Your task to perform on an android device: Clear the cart on target. Add "jbl charge 4" to the cart on target Image 0: 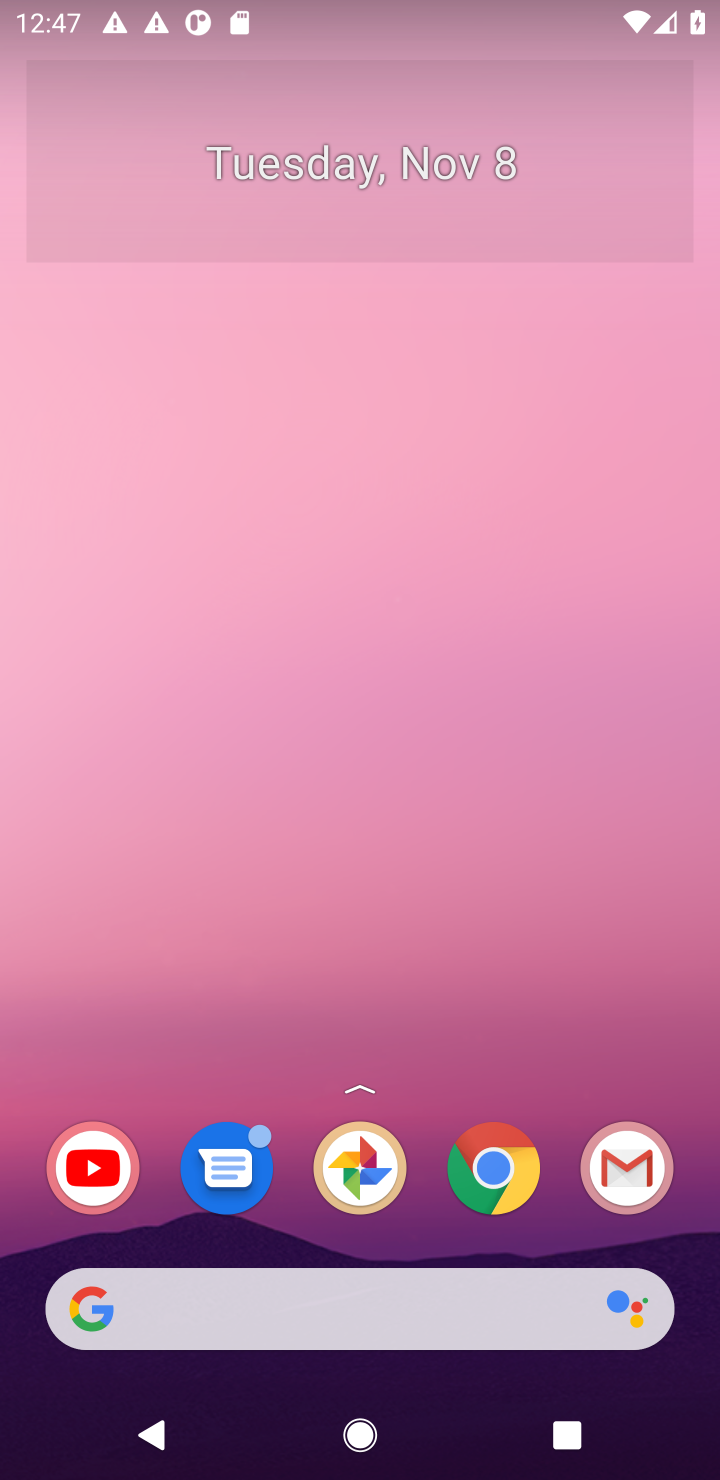
Step 0: drag from (363, 423) to (370, 25)
Your task to perform on an android device: Clear the cart on target. Add "jbl charge 4" to the cart on target Image 1: 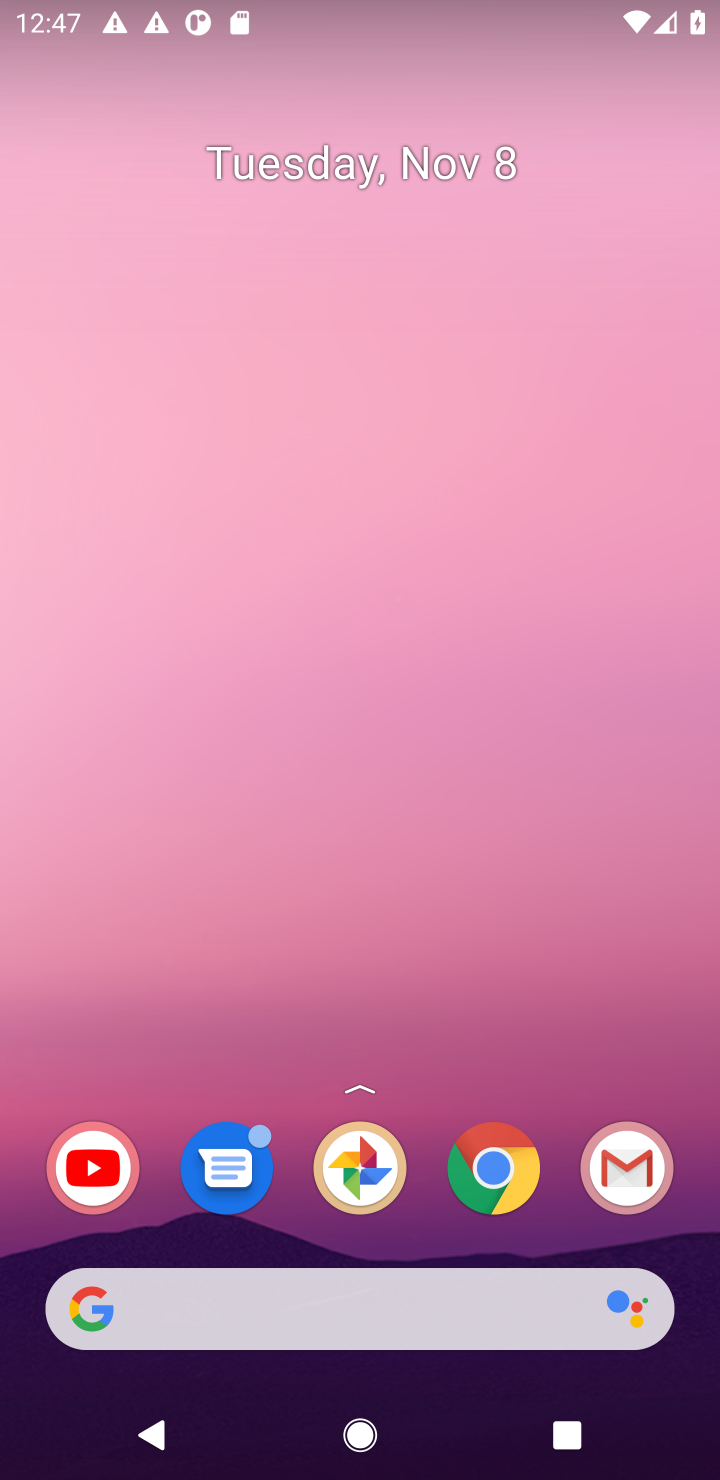
Step 1: drag from (331, 1235) to (418, 86)
Your task to perform on an android device: Clear the cart on target. Add "jbl charge 4" to the cart on target Image 2: 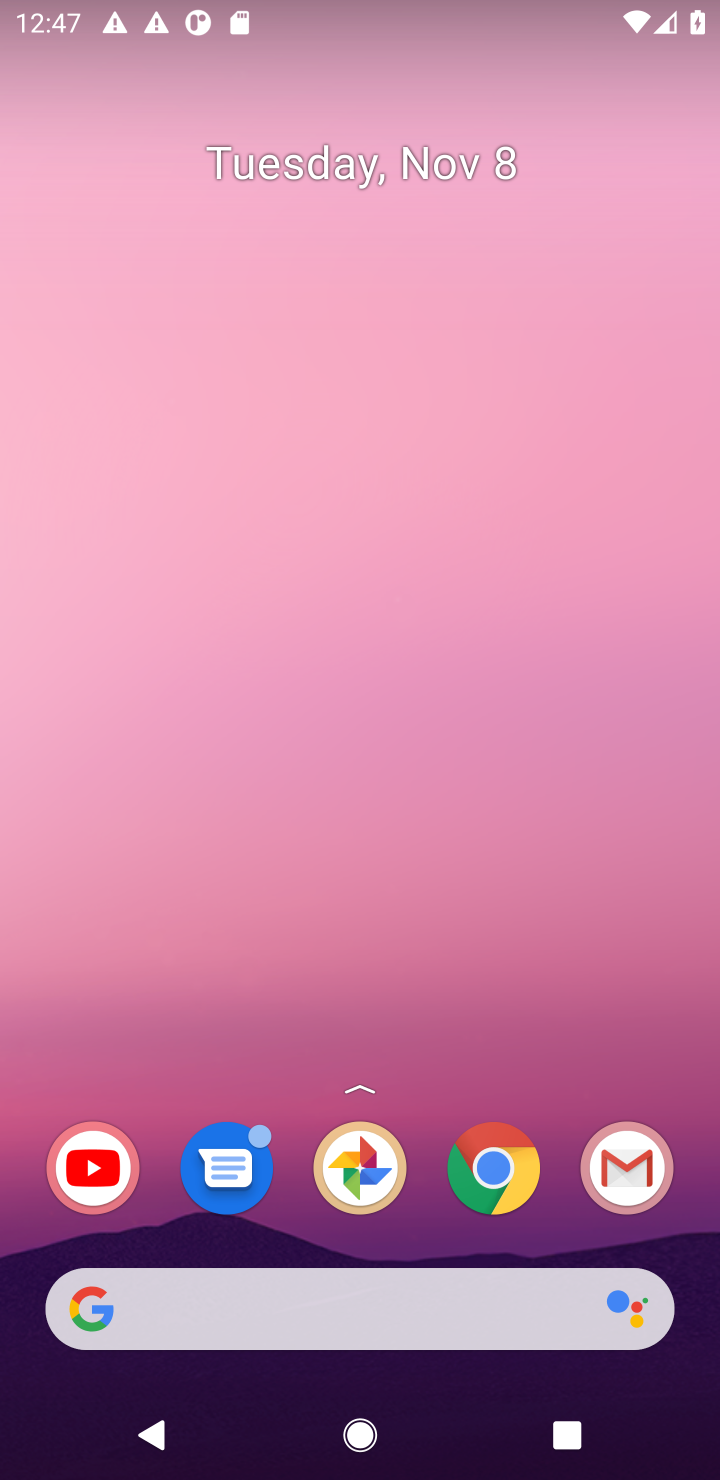
Step 2: drag from (438, 431) to (439, 174)
Your task to perform on an android device: Clear the cart on target. Add "jbl charge 4" to the cart on target Image 3: 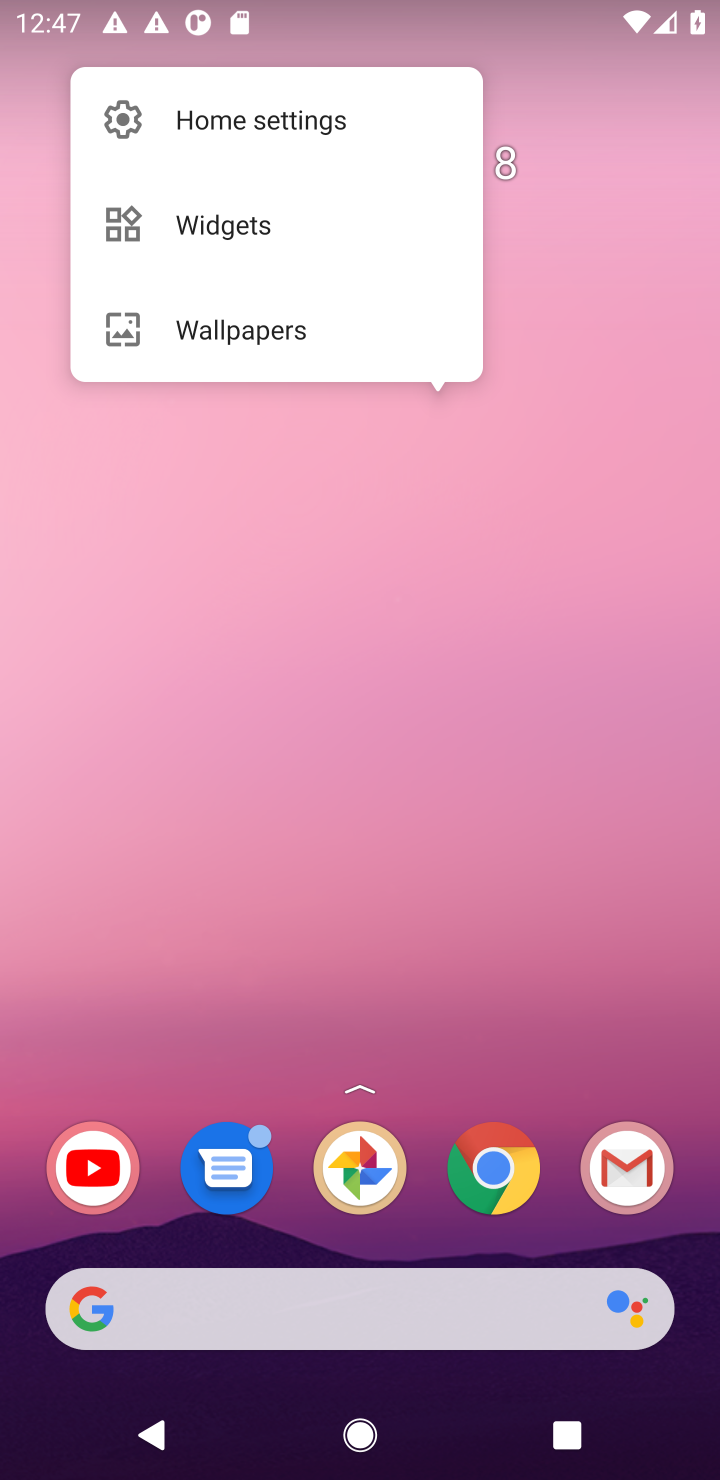
Step 3: click (511, 1165)
Your task to perform on an android device: Clear the cart on target. Add "jbl charge 4" to the cart on target Image 4: 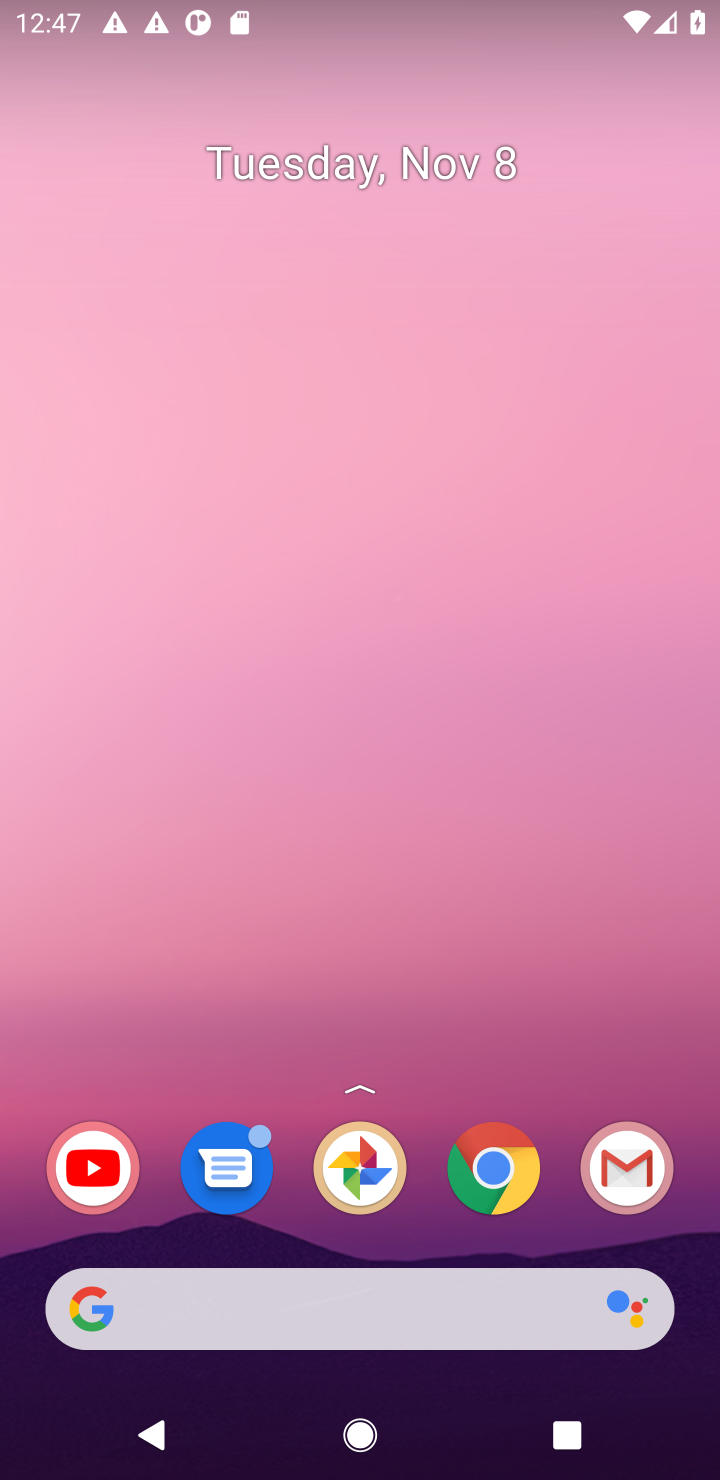
Step 4: click (504, 1178)
Your task to perform on an android device: Clear the cart on target. Add "jbl charge 4" to the cart on target Image 5: 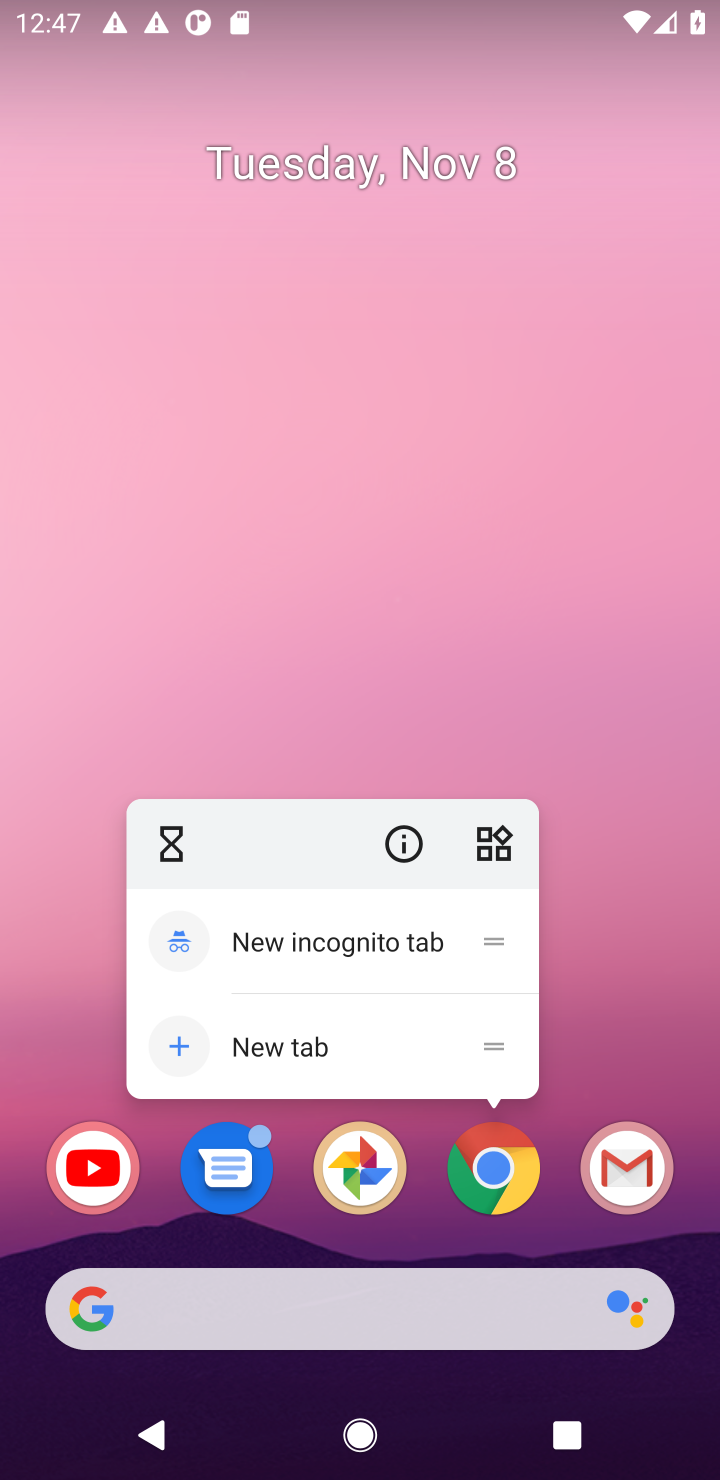
Step 5: click (509, 1156)
Your task to perform on an android device: Clear the cart on target. Add "jbl charge 4" to the cart on target Image 6: 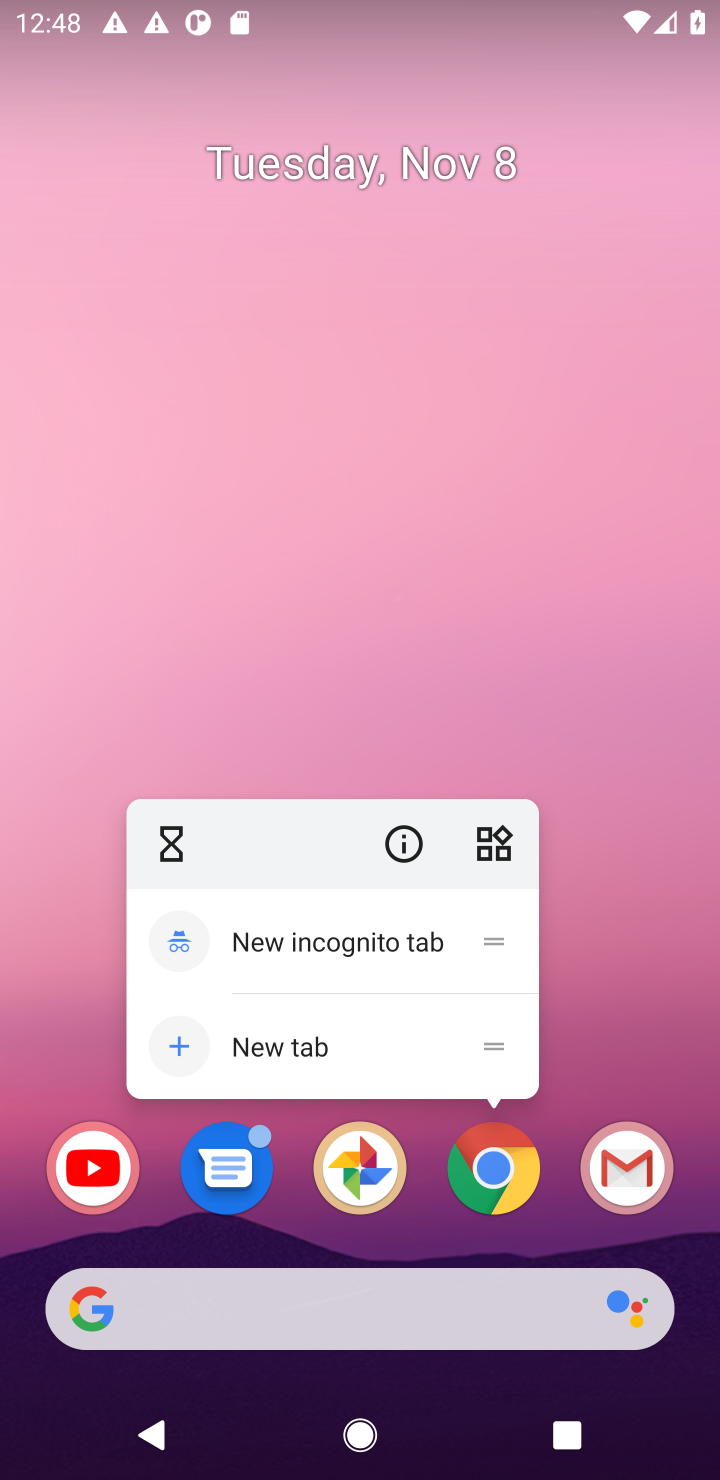
Step 6: click (495, 1180)
Your task to perform on an android device: Clear the cart on target. Add "jbl charge 4" to the cart on target Image 7: 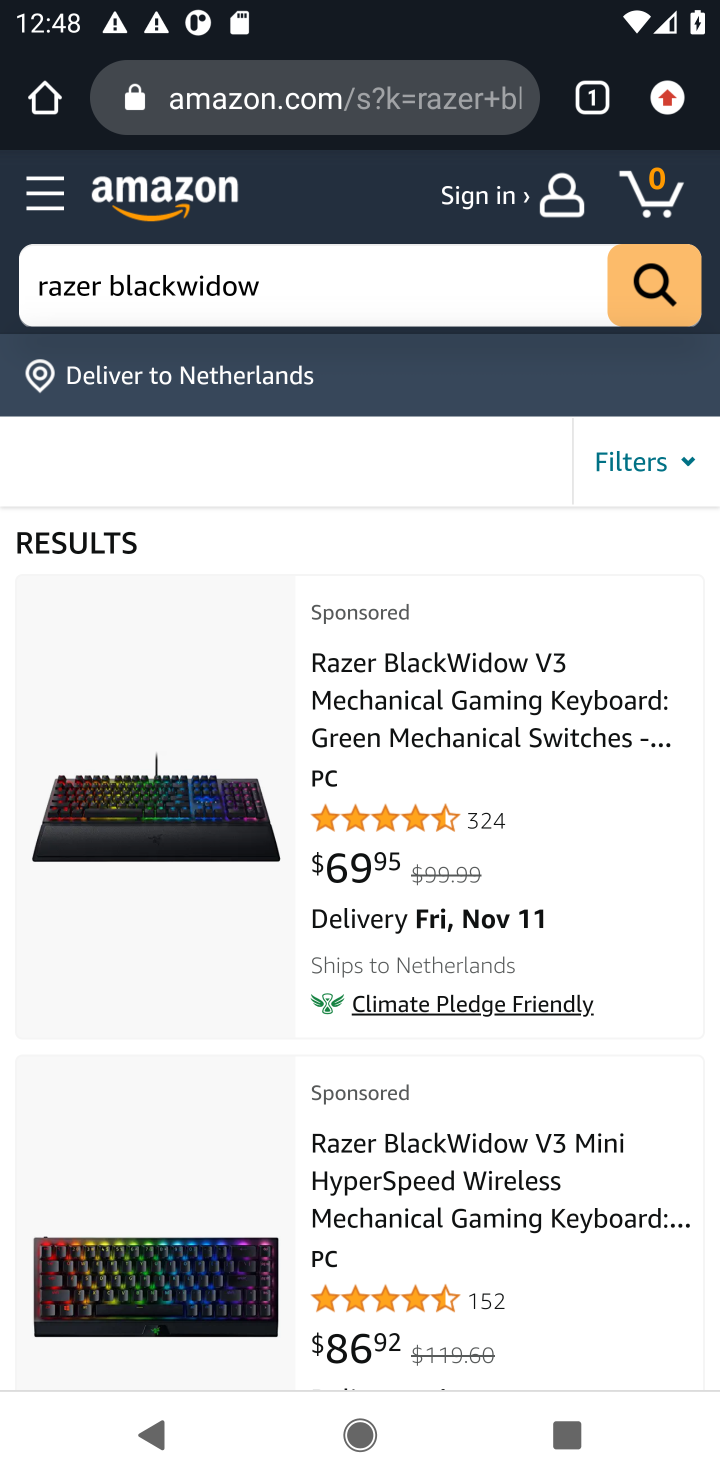
Step 7: click (296, 69)
Your task to perform on an android device: Clear the cart on target. Add "jbl charge 4" to the cart on target Image 8: 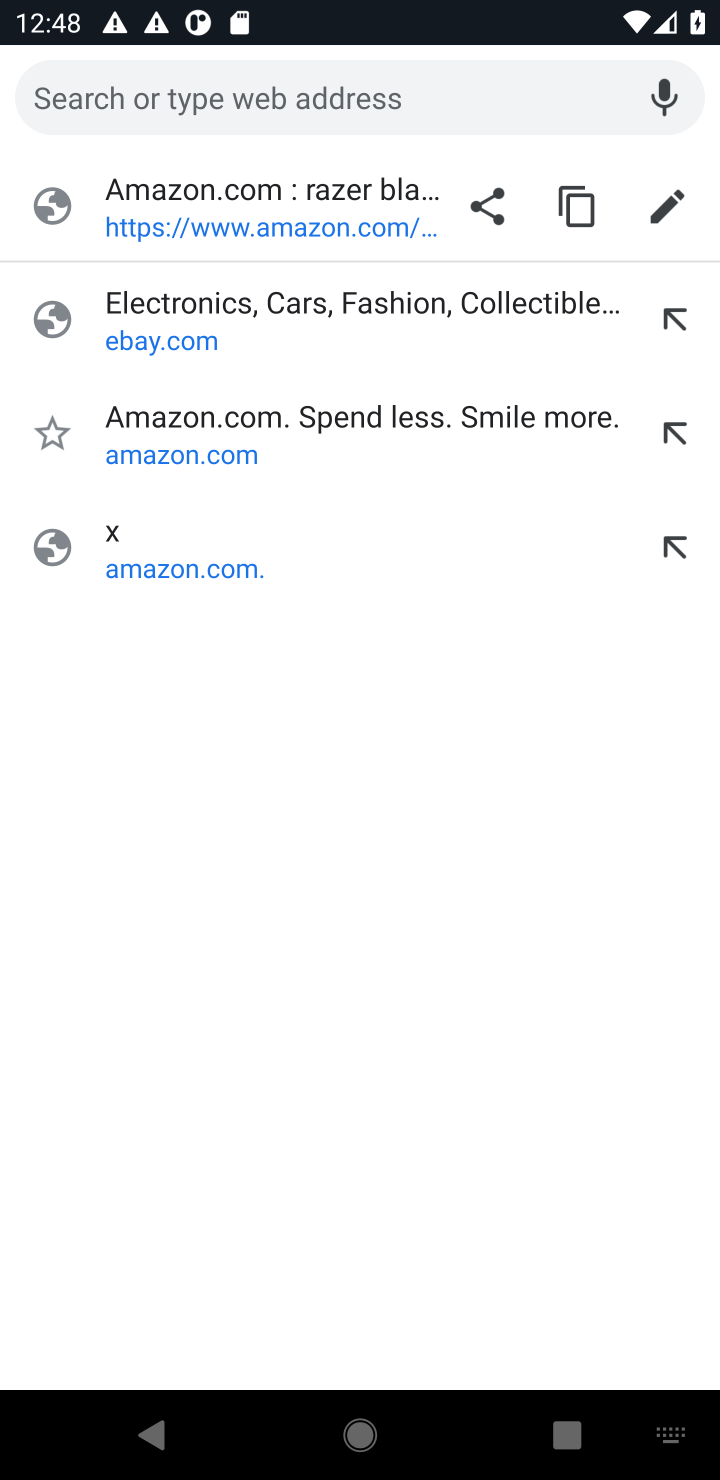
Step 8: type "target"
Your task to perform on an android device: Clear the cart on target. Add "jbl charge 4" to the cart on target Image 9: 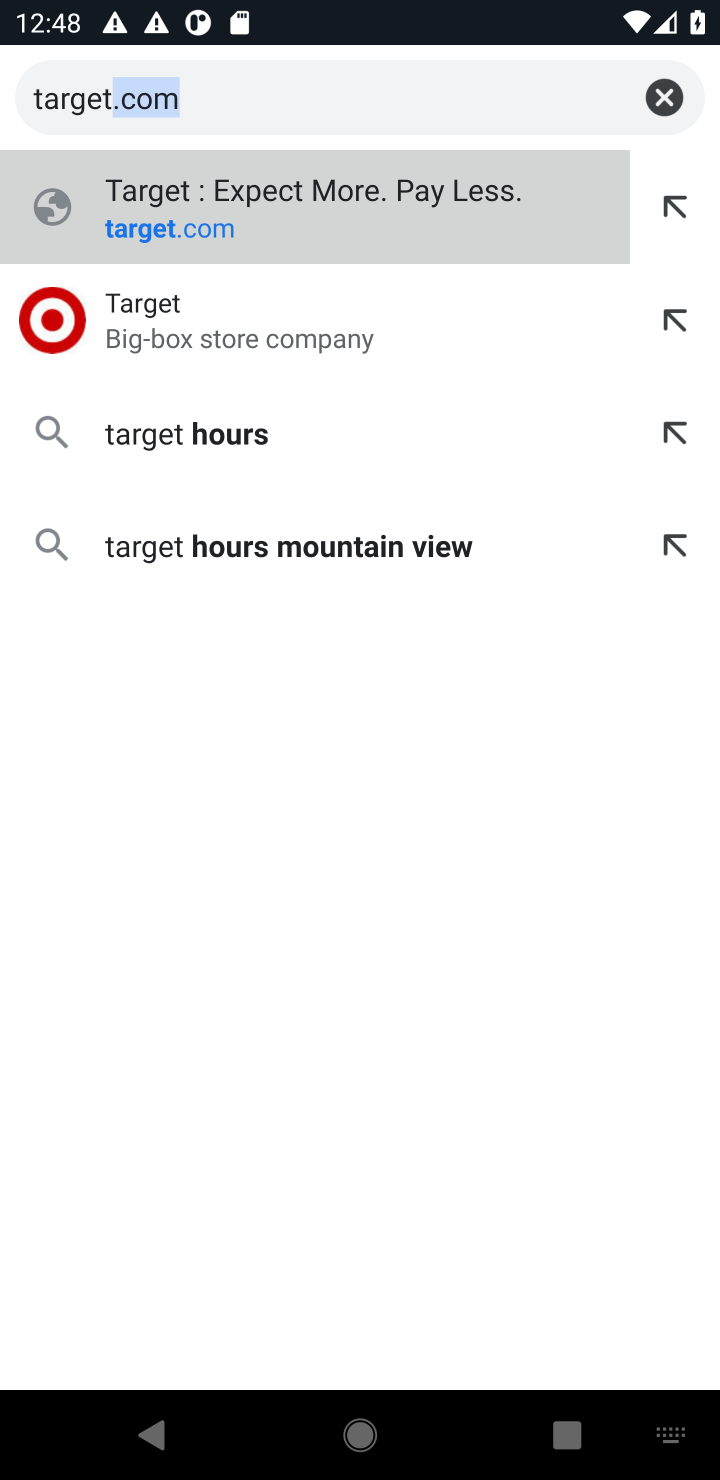
Step 9: press enter
Your task to perform on an android device: Clear the cart on target. Add "jbl charge 4" to the cart on target Image 10: 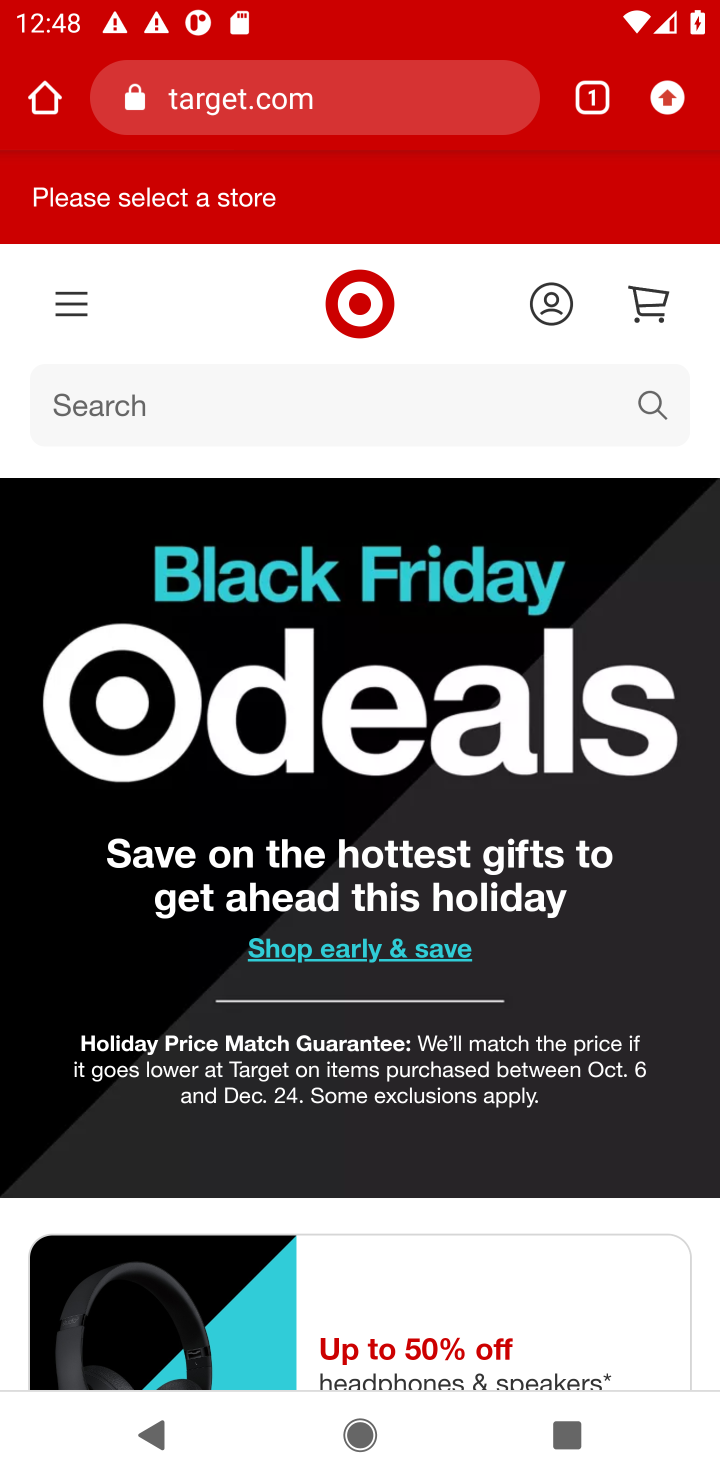
Step 10: click (155, 411)
Your task to perform on an android device: Clear the cart on target. Add "jbl charge 4" to the cart on target Image 11: 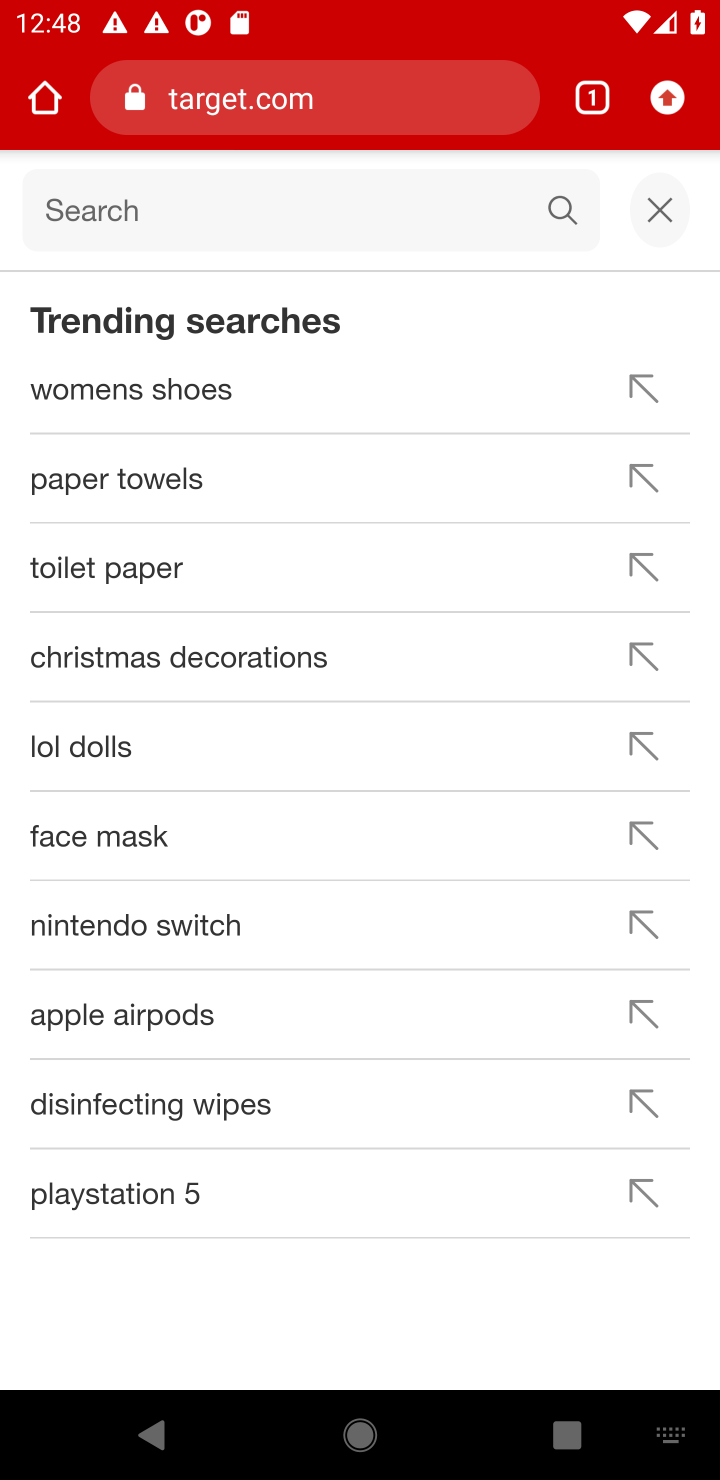
Step 11: press enter
Your task to perform on an android device: Clear the cart on target. Add "jbl charge 4" to the cart on target Image 12: 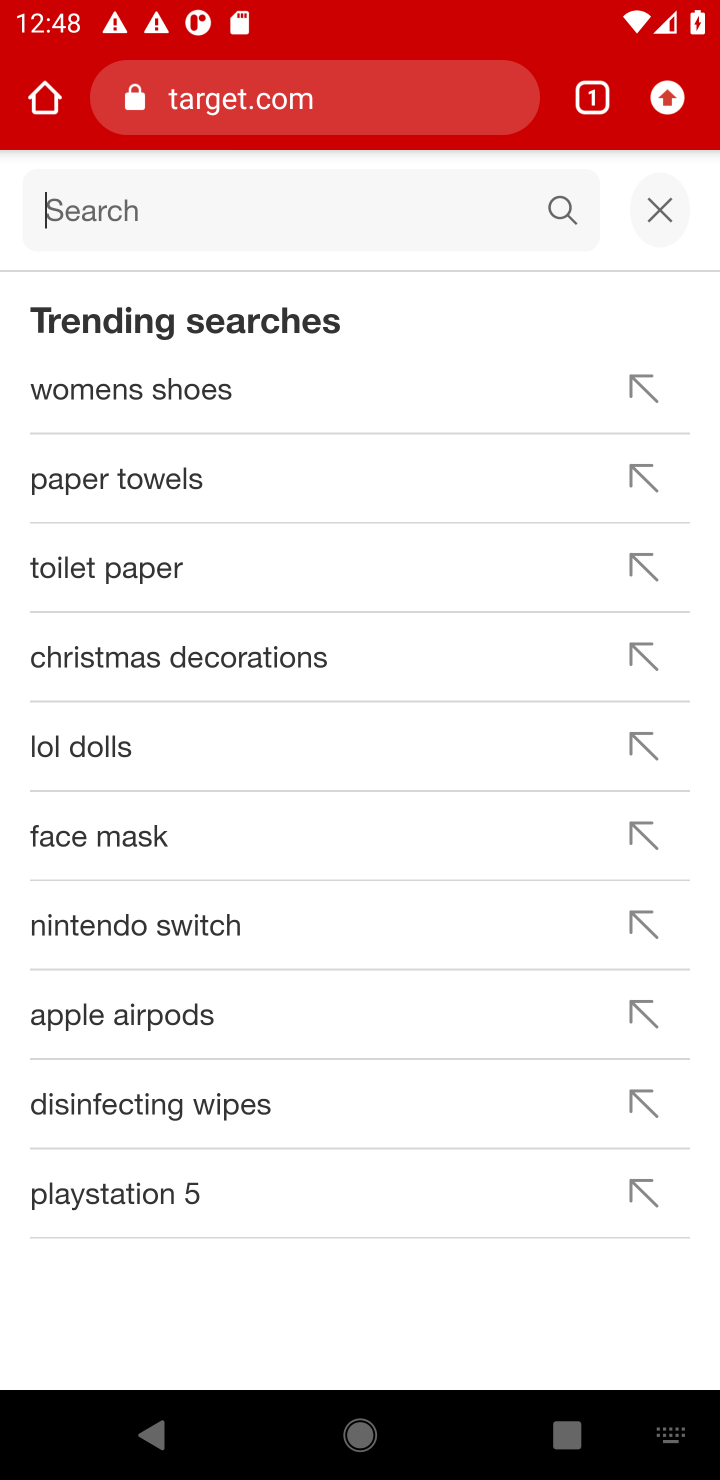
Step 12: type ""jbl charge 4"
Your task to perform on an android device: Clear the cart on target. Add "jbl charge 4" to the cart on target Image 13: 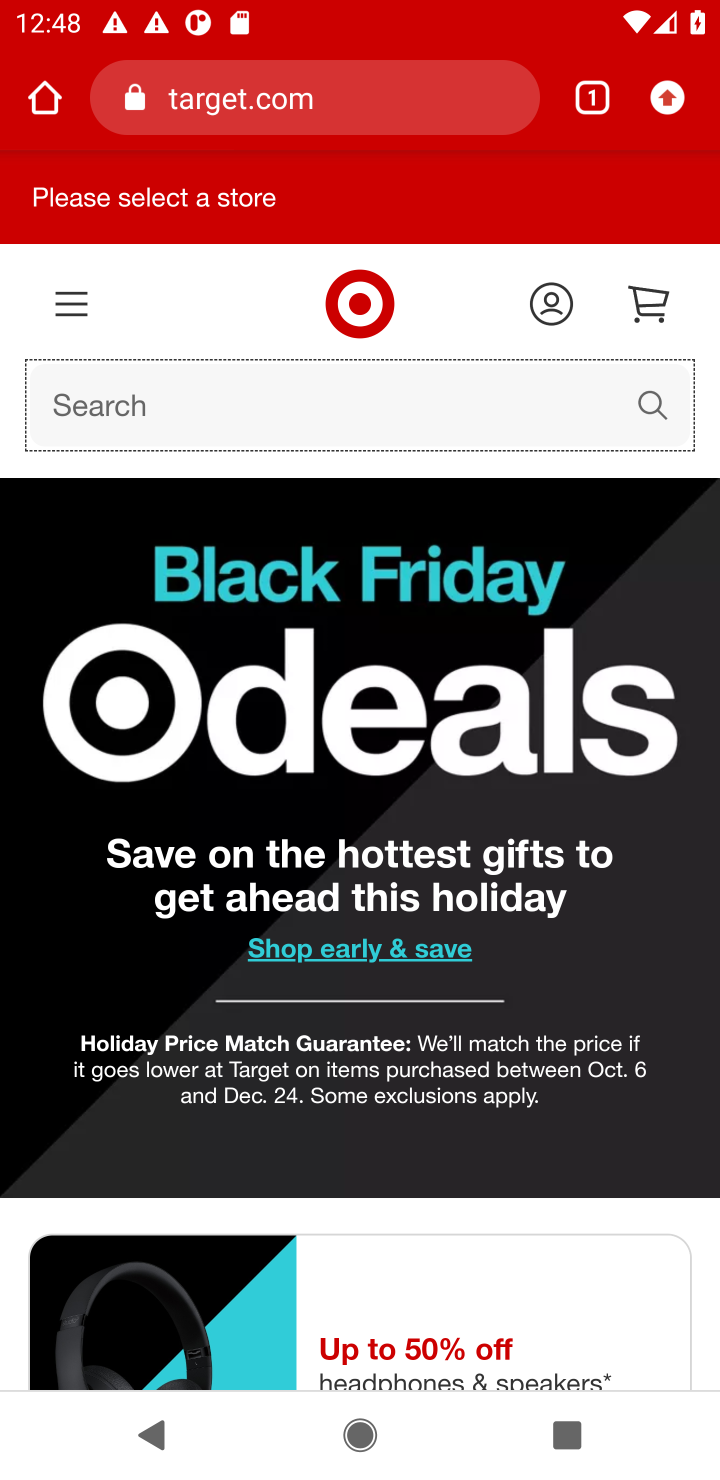
Step 13: click (254, 410)
Your task to perform on an android device: Clear the cart on target. Add "jbl charge 4" to the cart on target Image 14: 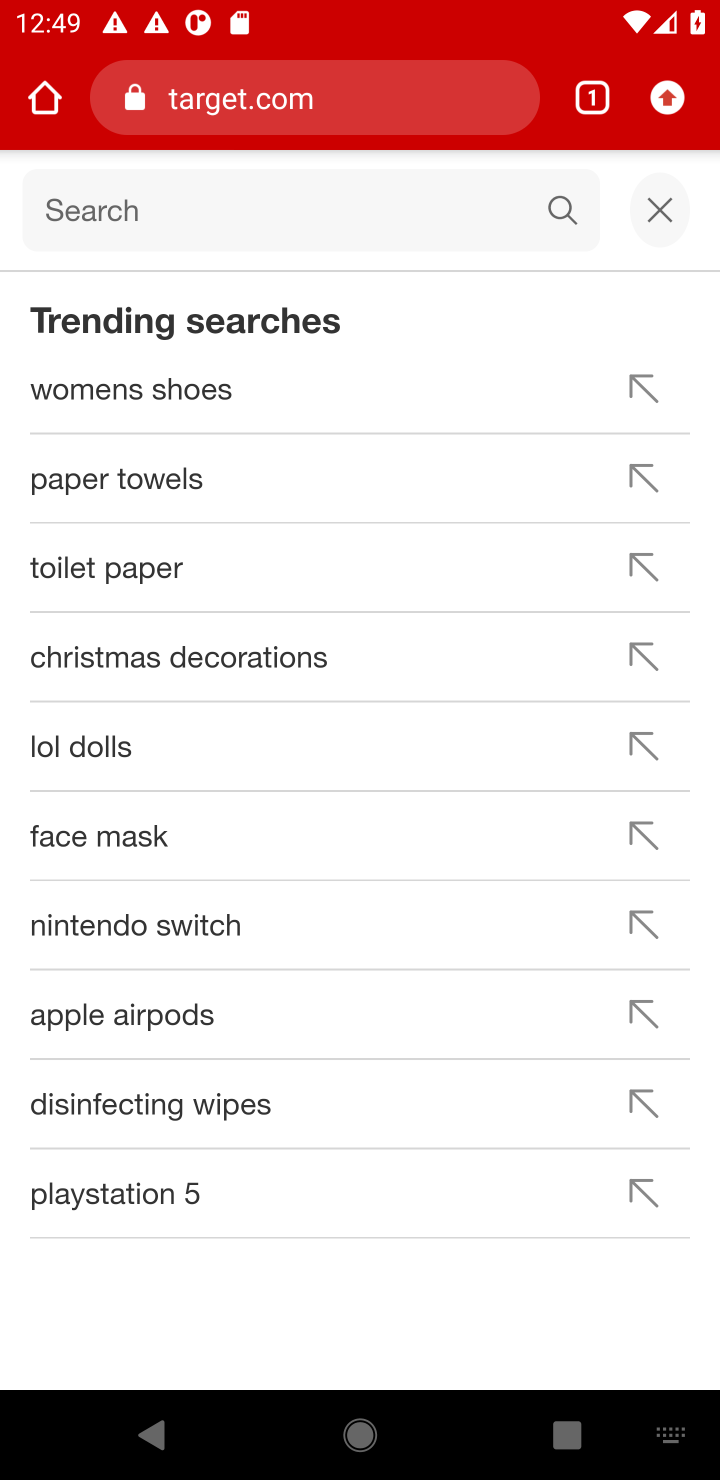
Step 14: type "jbl charge 4""
Your task to perform on an android device: Clear the cart on target. Add "jbl charge 4" to the cart on target Image 15: 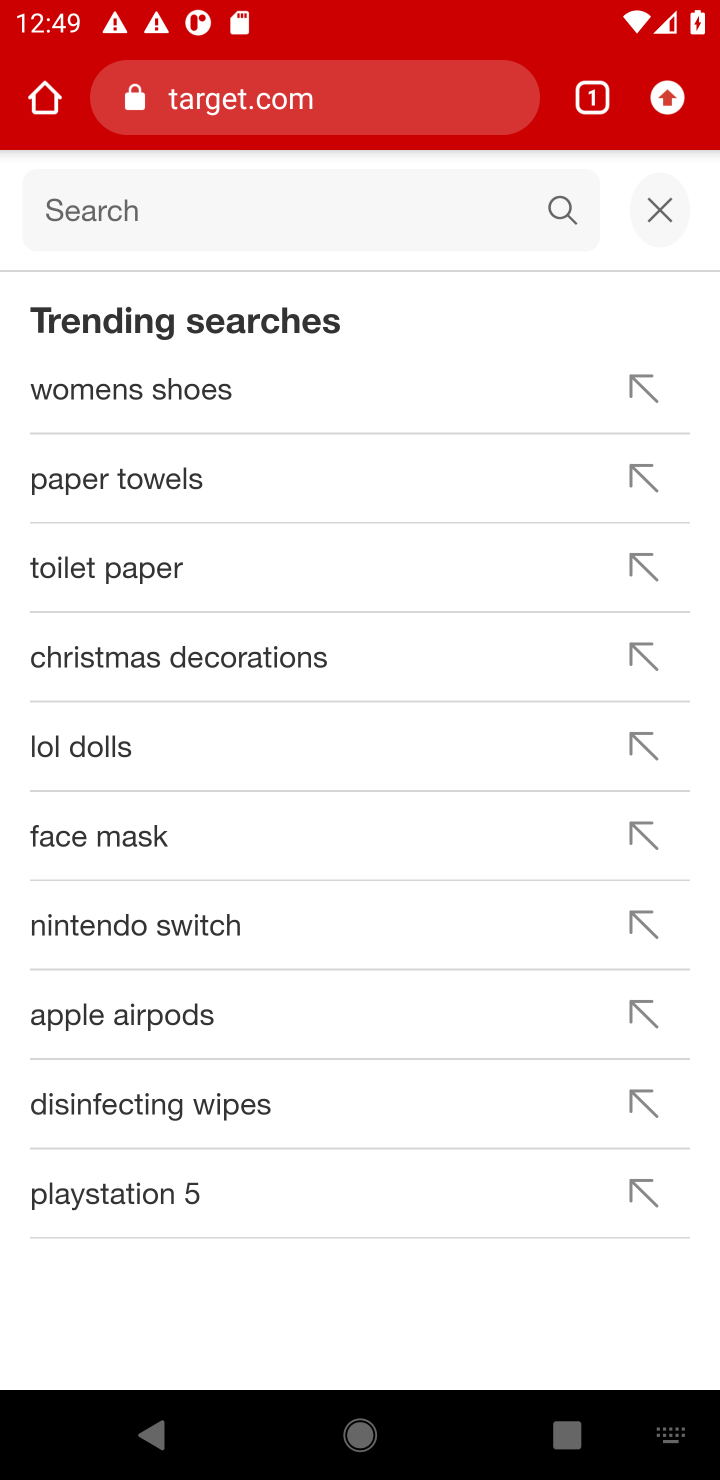
Step 15: press enter
Your task to perform on an android device: Clear the cart on target. Add "jbl charge 4" to the cart on target Image 16: 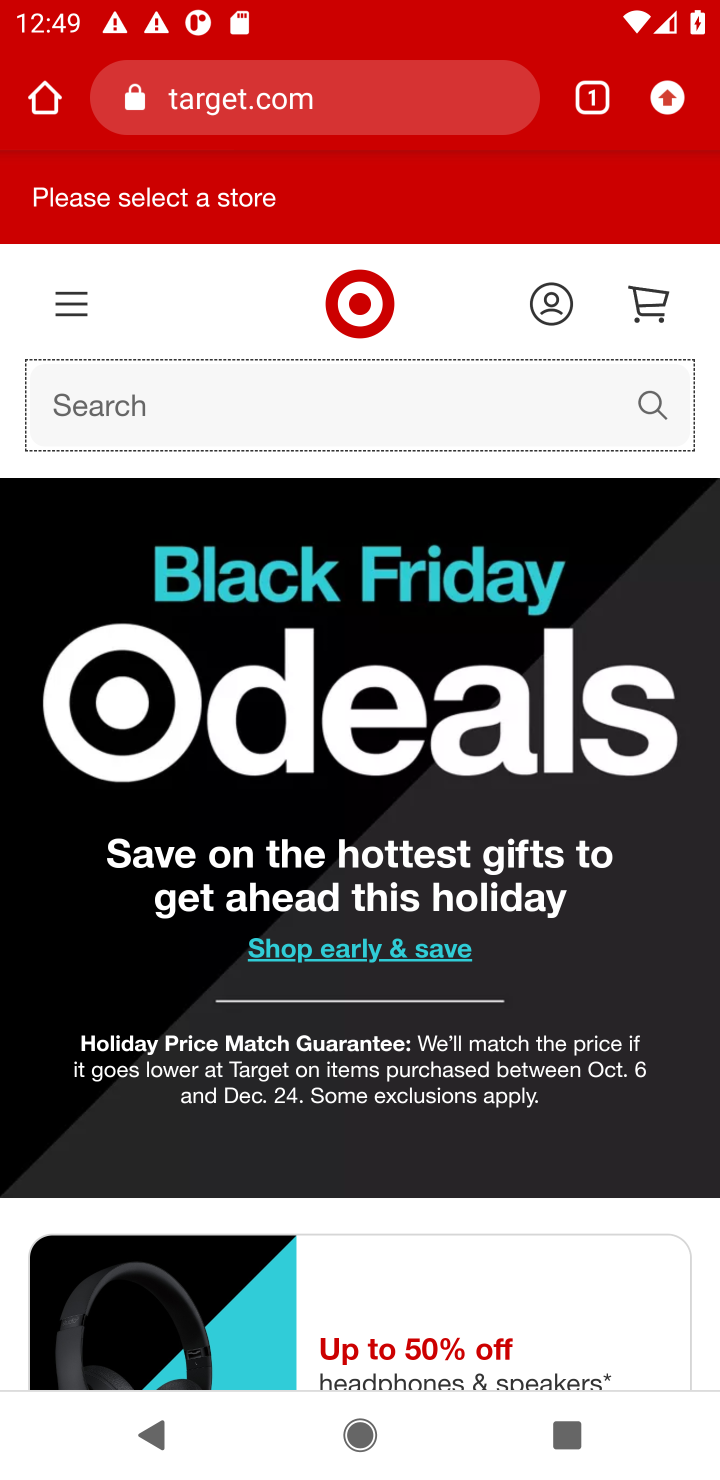
Step 16: click (376, 419)
Your task to perform on an android device: Clear the cart on target. Add "jbl charge 4" to the cart on target Image 17: 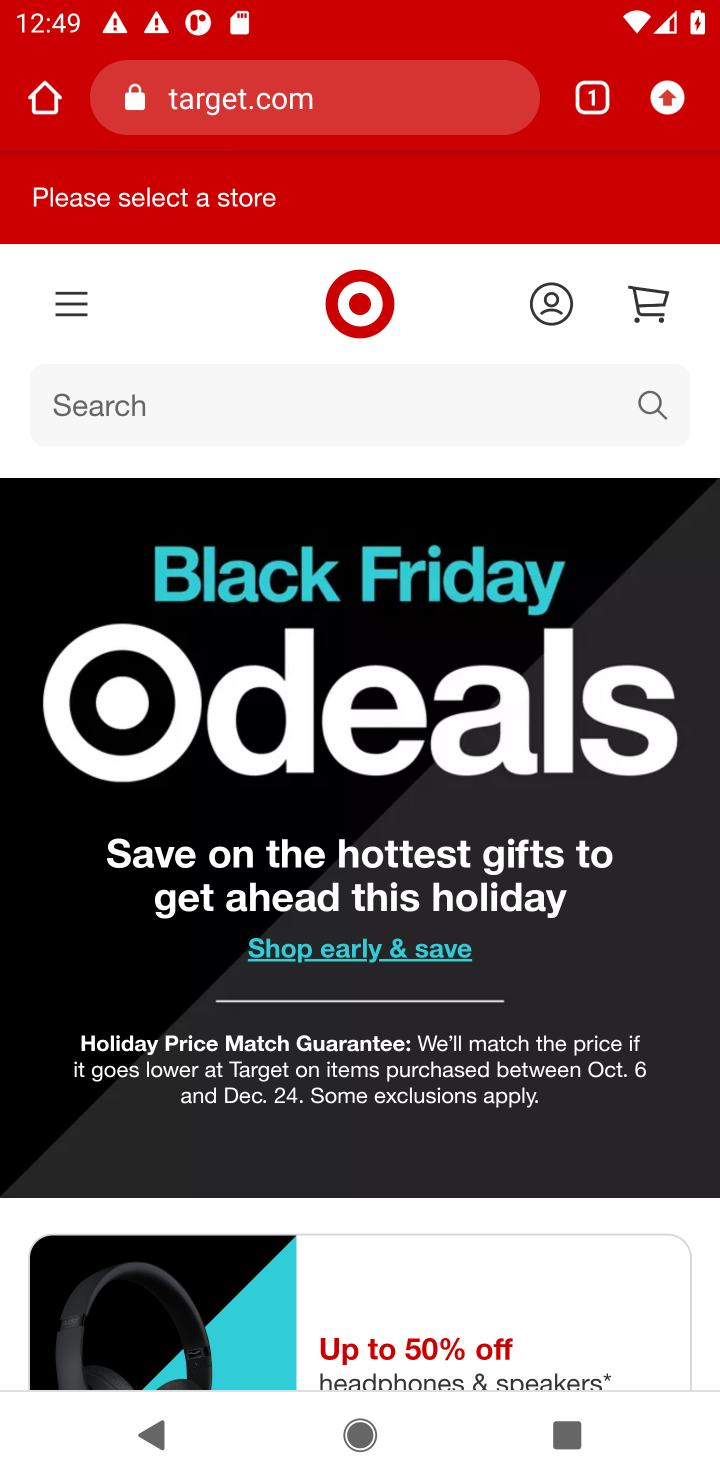
Step 17: press enter
Your task to perform on an android device: Clear the cart on target. Add "jbl charge 4" to the cart on target Image 18: 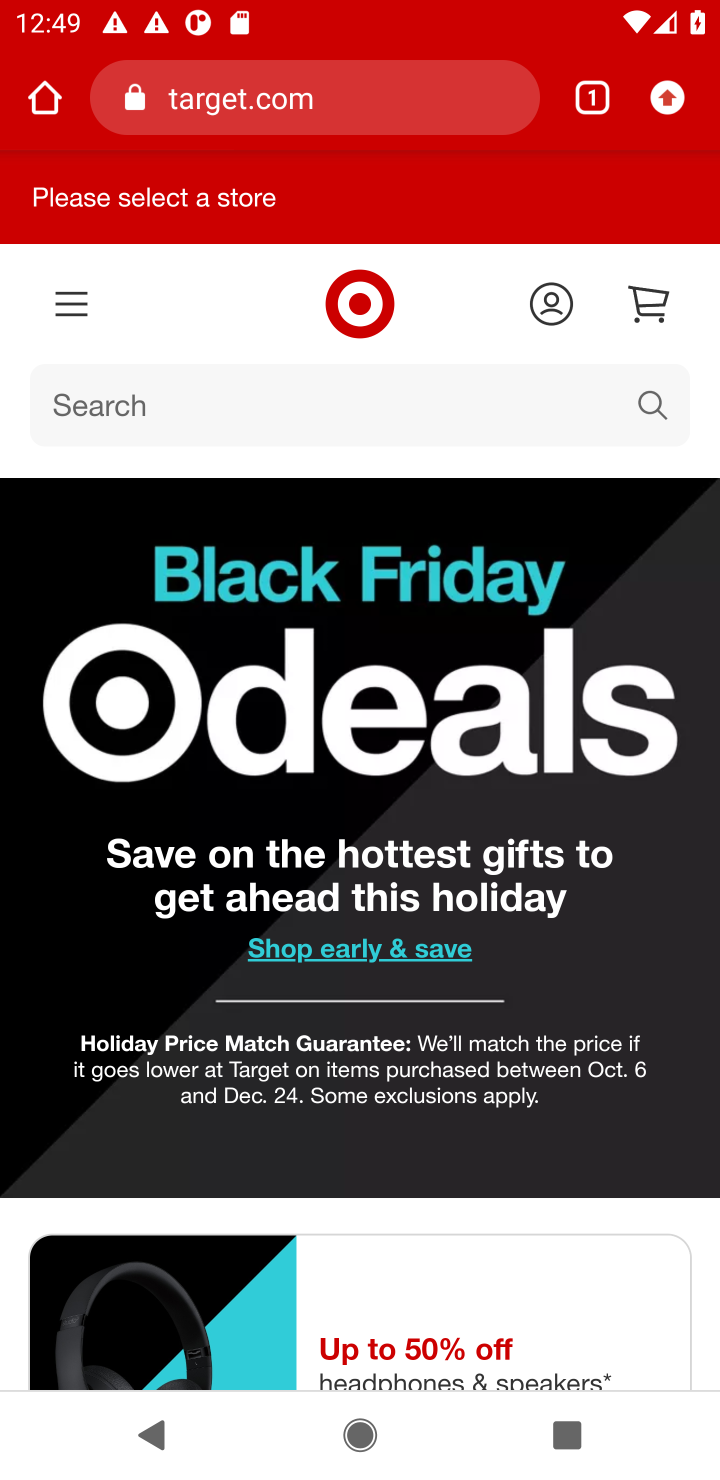
Step 18: type "jbl charge 4"
Your task to perform on an android device: Clear the cart on target. Add "jbl charge 4" to the cart on target Image 19: 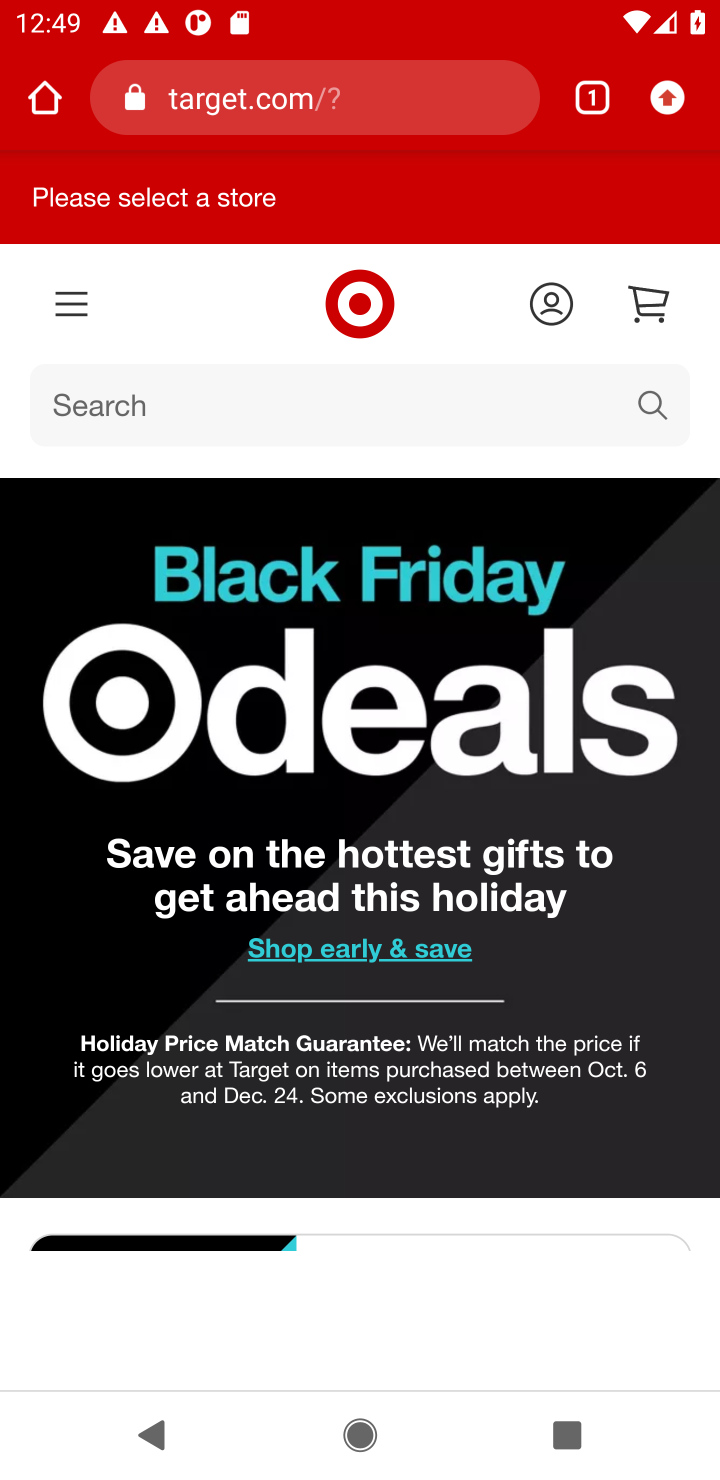
Step 19: task complete